Your task to perform on an android device: toggle data saver in the chrome app Image 0: 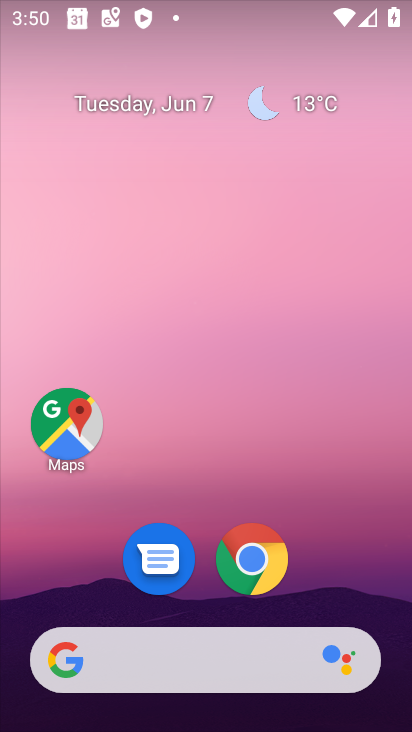
Step 0: click (250, 561)
Your task to perform on an android device: toggle data saver in the chrome app Image 1: 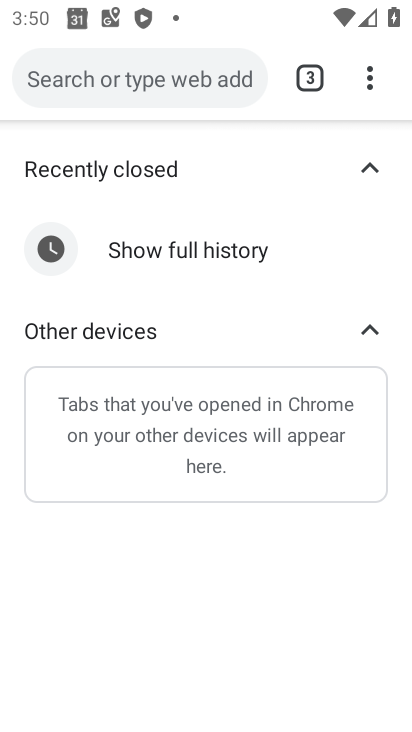
Step 1: click (369, 73)
Your task to perform on an android device: toggle data saver in the chrome app Image 2: 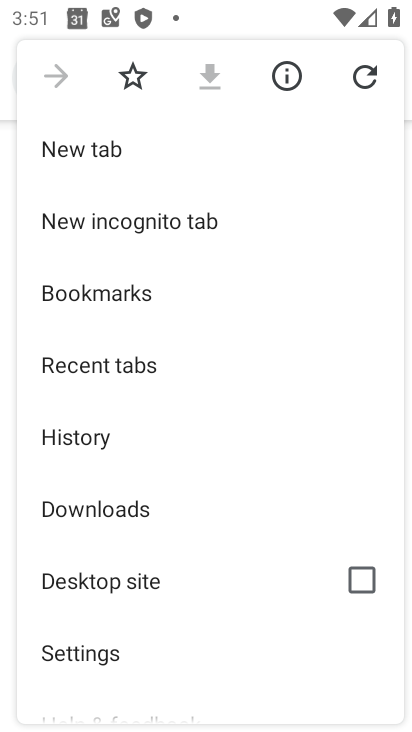
Step 2: drag from (161, 620) to (187, 492)
Your task to perform on an android device: toggle data saver in the chrome app Image 3: 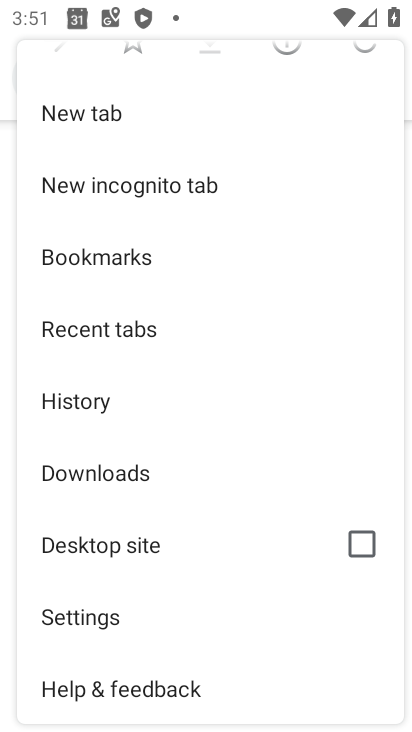
Step 3: click (86, 610)
Your task to perform on an android device: toggle data saver in the chrome app Image 4: 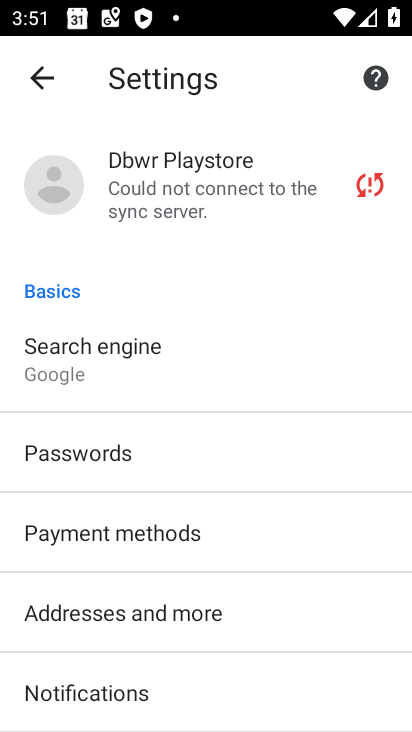
Step 4: drag from (244, 615) to (260, 274)
Your task to perform on an android device: toggle data saver in the chrome app Image 5: 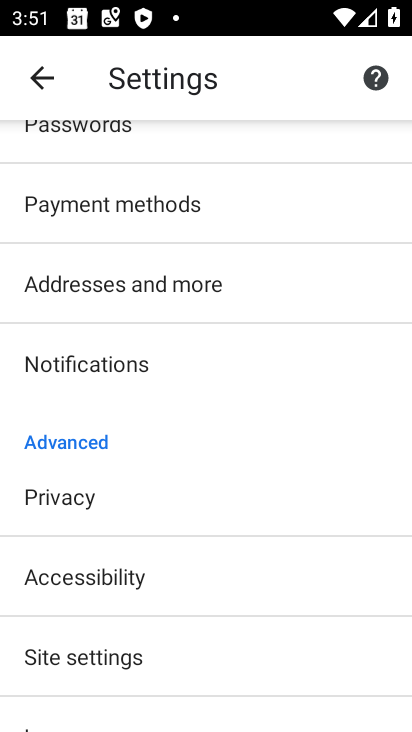
Step 5: drag from (174, 592) to (238, 360)
Your task to perform on an android device: toggle data saver in the chrome app Image 6: 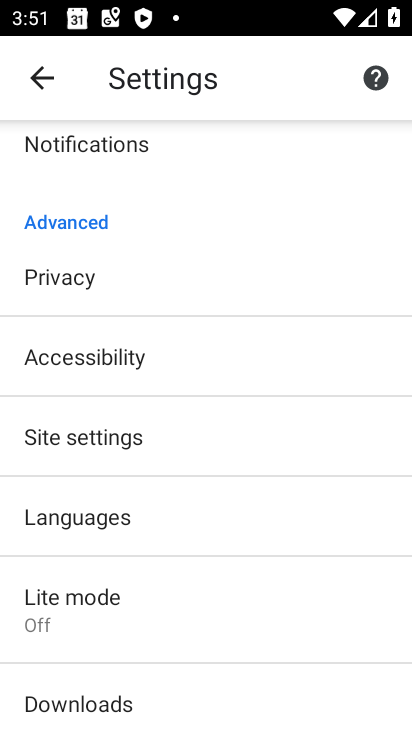
Step 6: click (109, 594)
Your task to perform on an android device: toggle data saver in the chrome app Image 7: 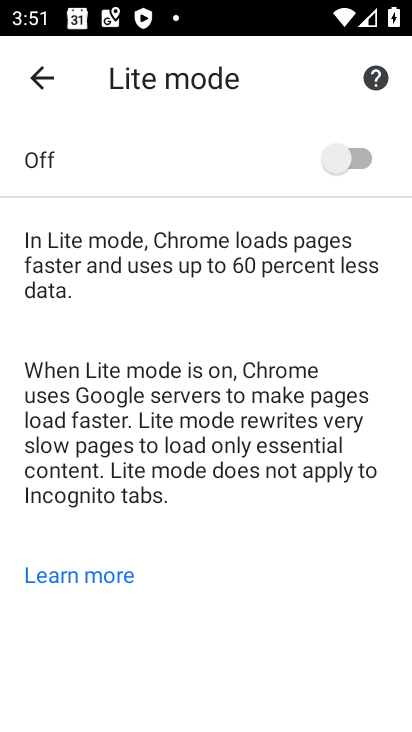
Step 7: click (339, 166)
Your task to perform on an android device: toggle data saver in the chrome app Image 8: 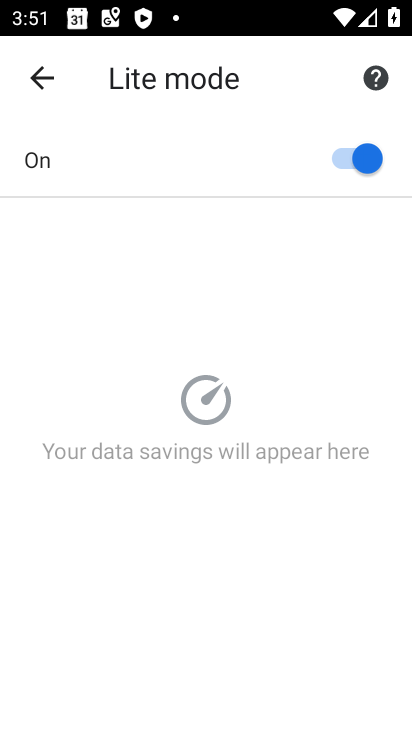
Step 8: task complete